Your task to perform on an android device: see creations saved in the google photos Image 0: 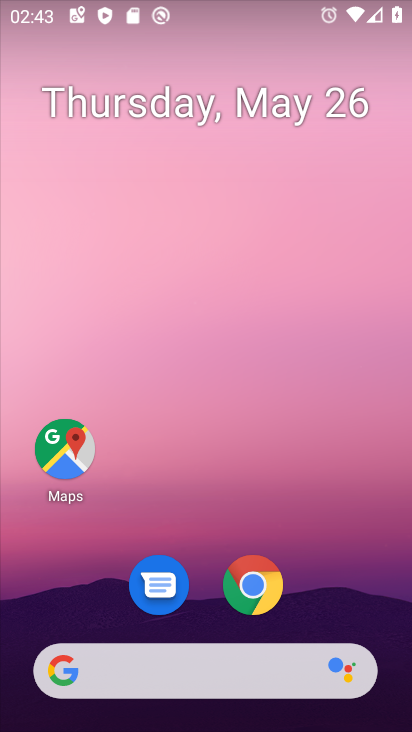
Step 0: drag from (341, 574) to (341, 73)
Your task to perform on an android device: see creations saved in the google photos Image 1: 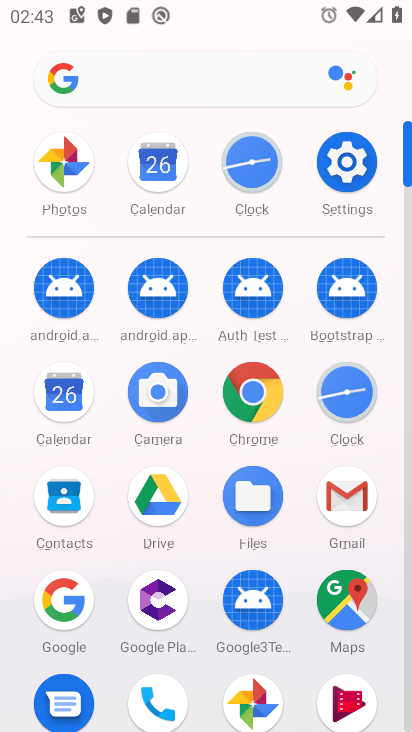
Step 1: click (66, 157)
Your task to perform on an android device: see creations saved in the google photos Image 2: 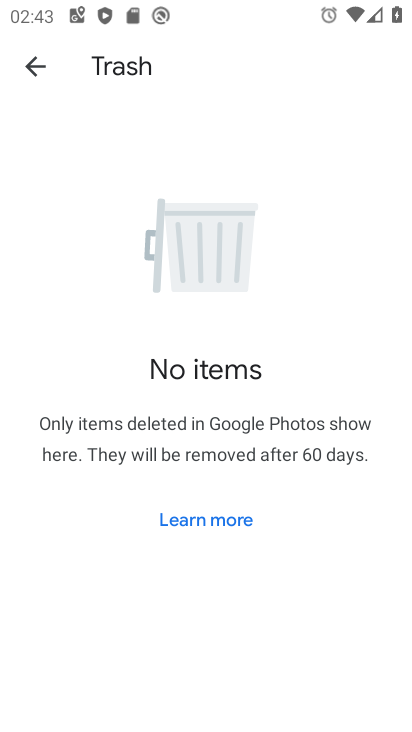
Step 2: click (35, 58)
Your task to perform on an android device: see creations saved in the google photos Image 3: 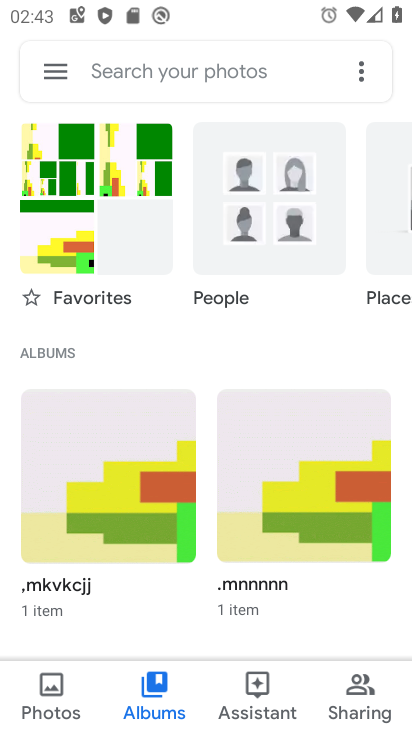
Step 3: click (187, 71)
Your task to perform on an android device: see creations saved in the google photos Image 4: 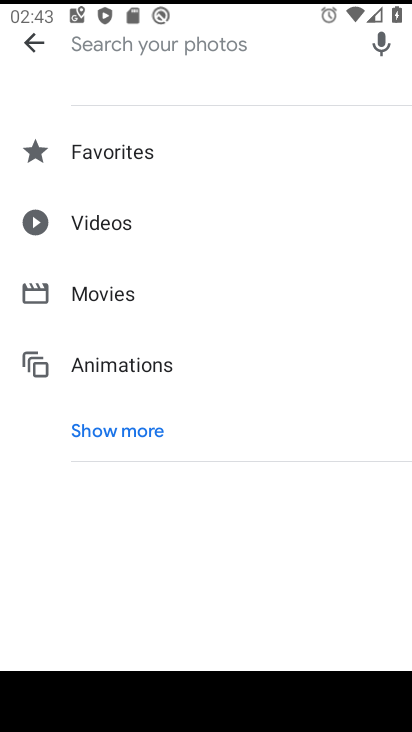
Step 4: click (150, 425)
Your task to perform on an android device: see creations saved in the google photos Image 5: 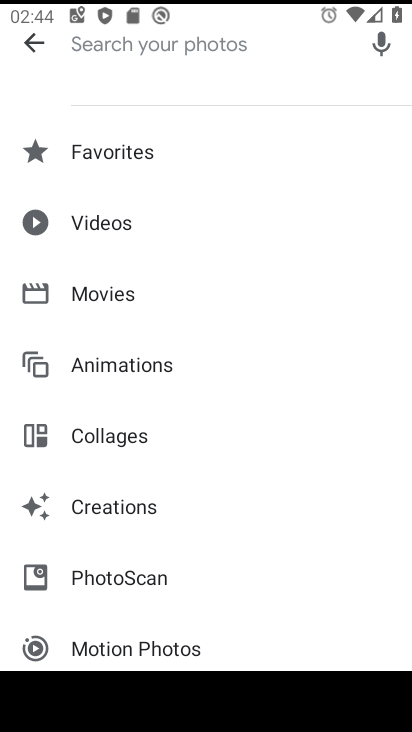
Step 5: click (137, 505)
Your task to perform on an android device: see creations saved in the google photos Image 6: 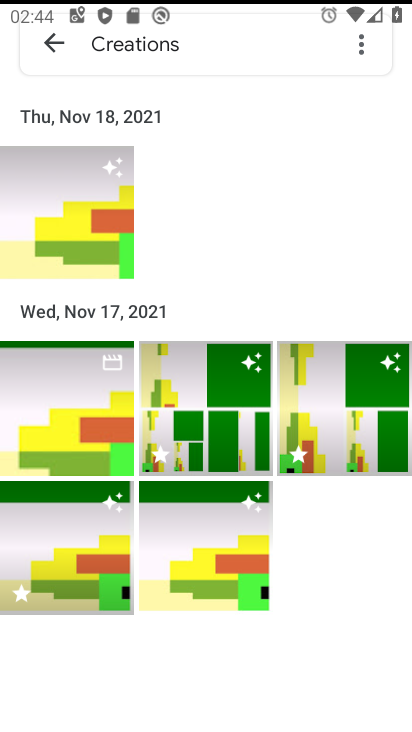
Step 6: task complete